Your task to perform on an android device: Open network settings Image 0: 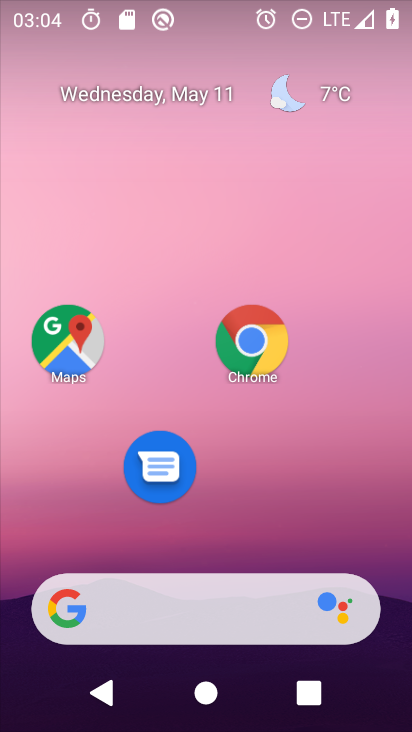
Step 0: drag from (146, 614) to (315, 115)
Your task to perform on an android device: Open network settings Image 1: 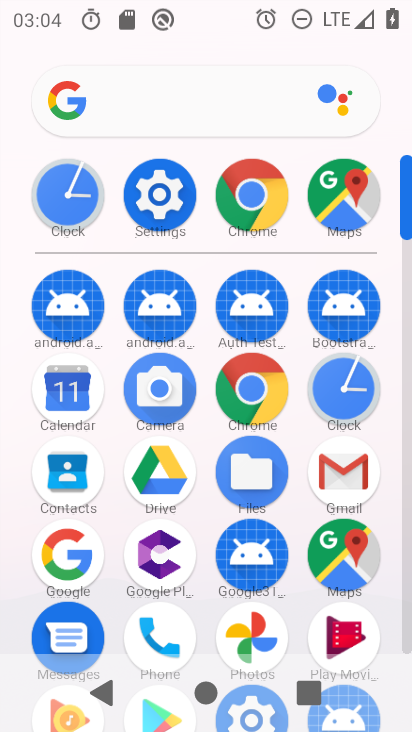
Step 1: click (168, 200)
Your task to perform on an android device: Open network settings Image 2: 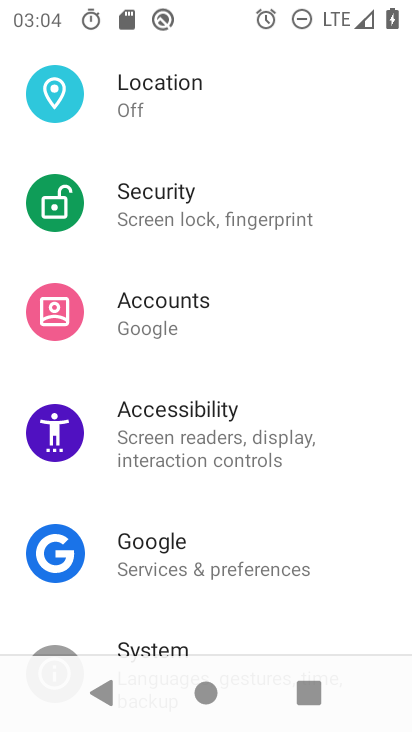
Step 2: drag from (329, 118) to (202, 484)
Your task to perform on an android device: Open network settings Image 3: 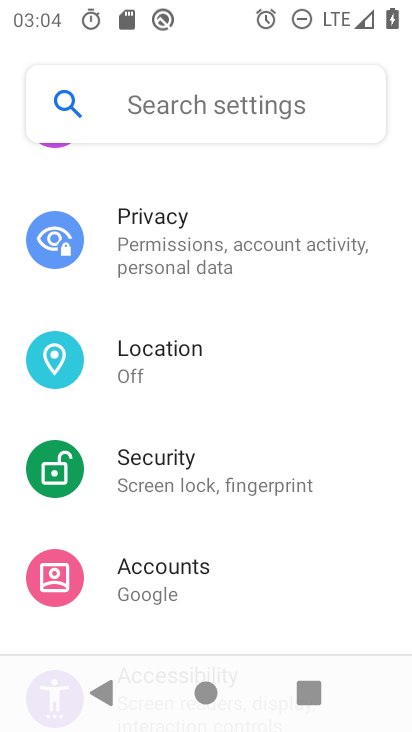
Step 3: drag from (240, 192) to (210, 592)
Your task to perform on an android device: Open network settings Image 4: 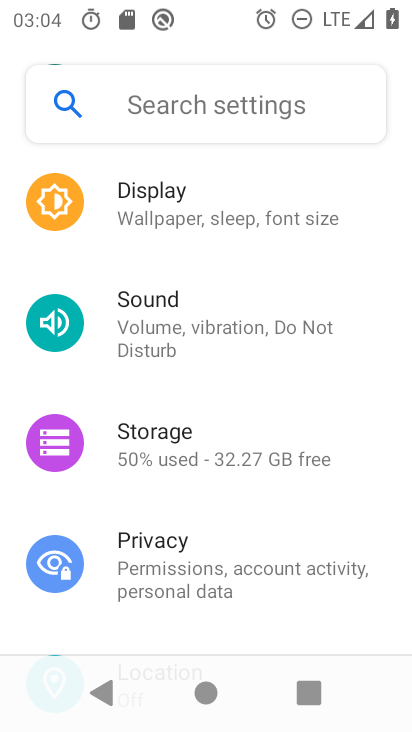
Step 4: drag from (300, 184) to (223, 657)
Your task to perform on an android device: Open network settings Image 5: 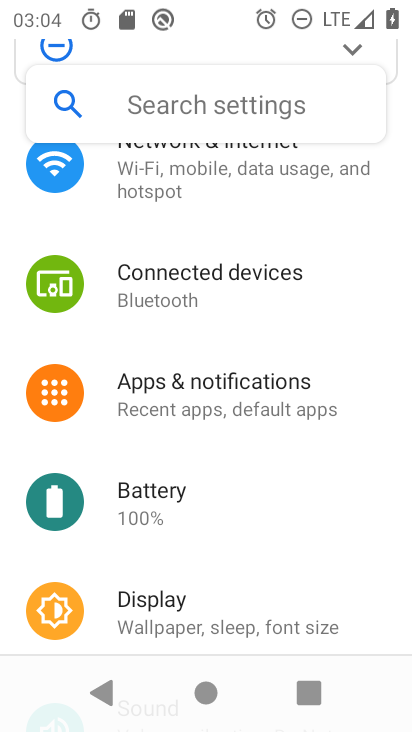
Step 5: drag from (282, 225) to (228, 537)
Your task to perform on an android device: Open network settings Image 6: 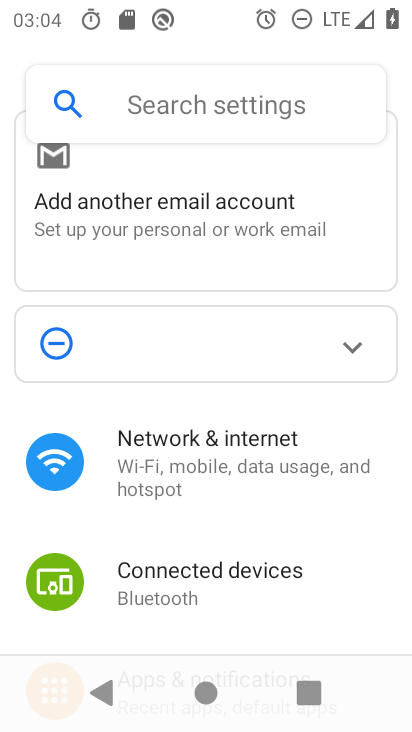
Step 6: click (229, 460)
Your task to perform on an android device: Open network settings Image 7: 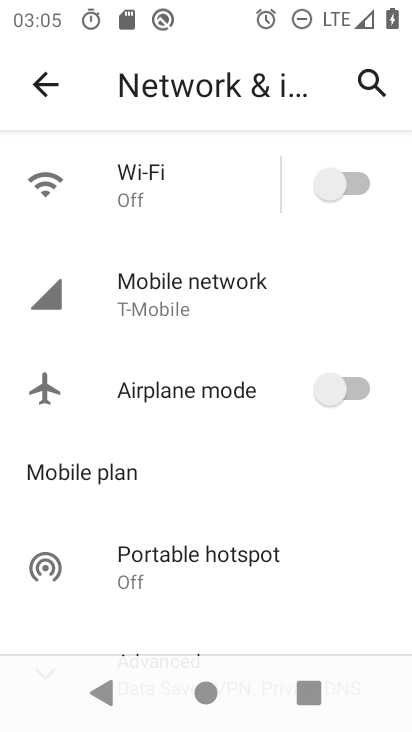
Step 7: task complete